Your task to perform on an android device: turn on bluetooth scan Image 0: 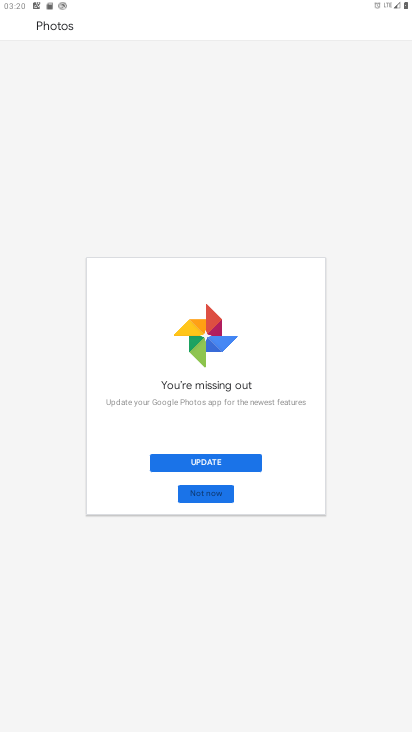
Step 0: press home button
Your task to perform on an android device: turn on bluetooth scan Image 1: 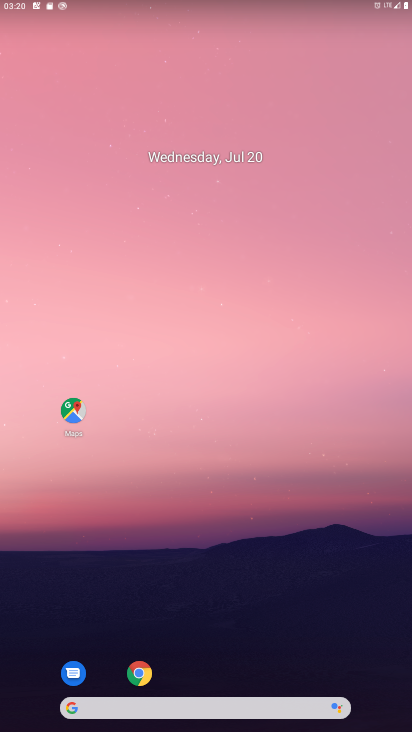
Step 1: drag from (202, 641) to (217, 5)
Your task to perform on an android device: turn on bluetooth scan Image 2: 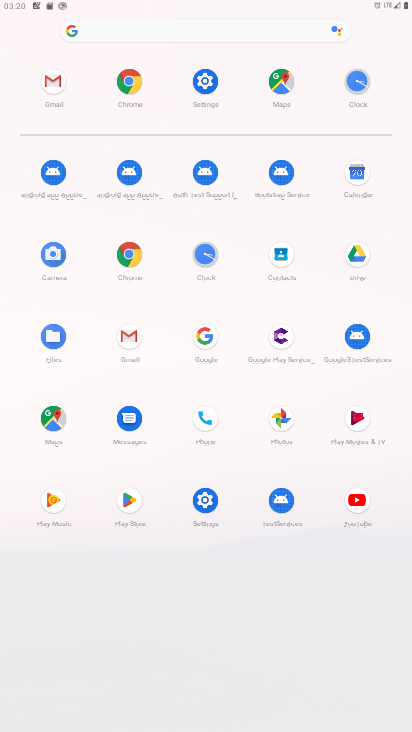
Step 2: click (199, 515)
Your task to perform on an android device: turn on bluetooth scan Image 3: 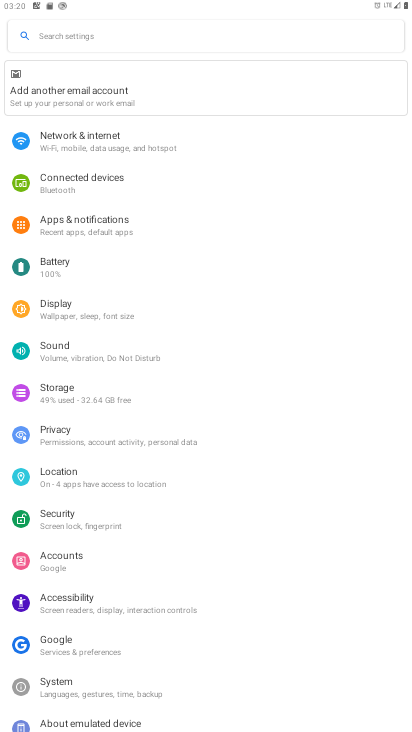
Step 3: click (76, 481)
Your task to perform on an android device: turn on bluetooth scan Image 4: 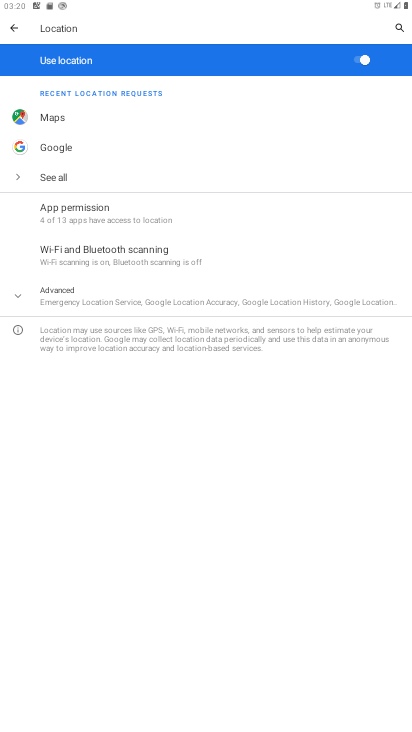
Step 4: click (138, 247)
Your task to perform on an android device: turn on bluetooth scan Image 5: 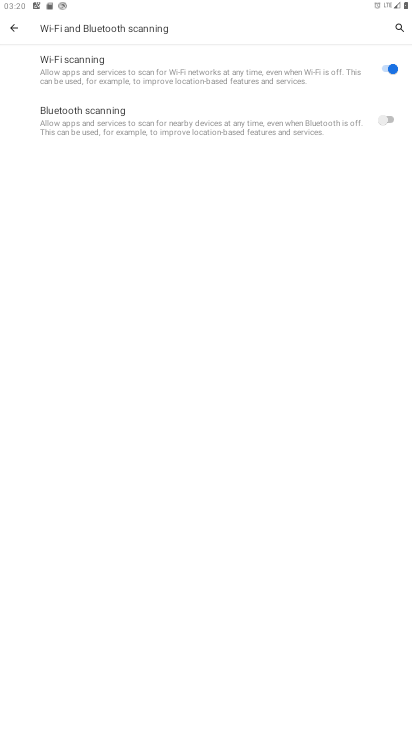
Step 5: click (394, 129)
Your task to perform on an android device: turn on bluetooth scan Image 6: 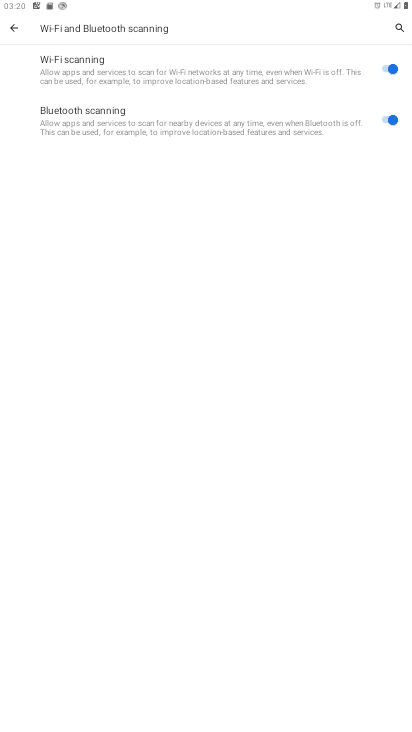
Step 6: task complete